Your task to perform on an android device: Go to CNN.com Image 0: 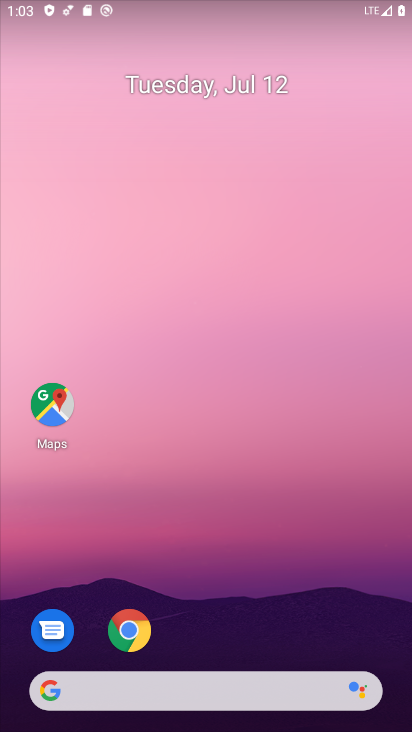
Step 0: click (127, 624)
Your task to perform on an android device: Go to CNN.com Image 1: 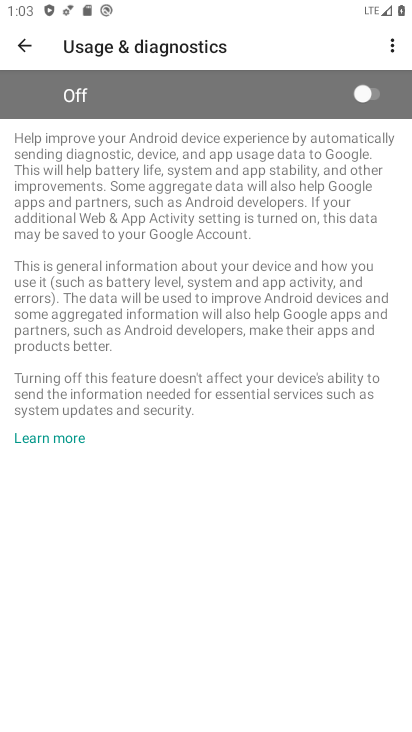
Step 1: press back button
Your task to perform on an android device: Go to CNN.com Image 2: 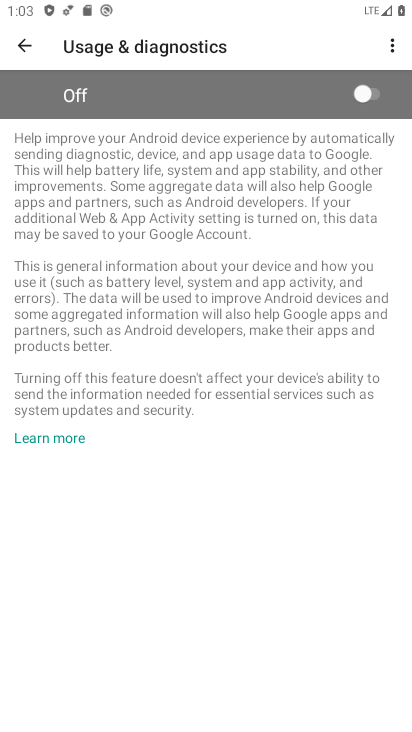
Step 2: press home button
Your task to perform on an android device: Go to CNN.com Image 3: 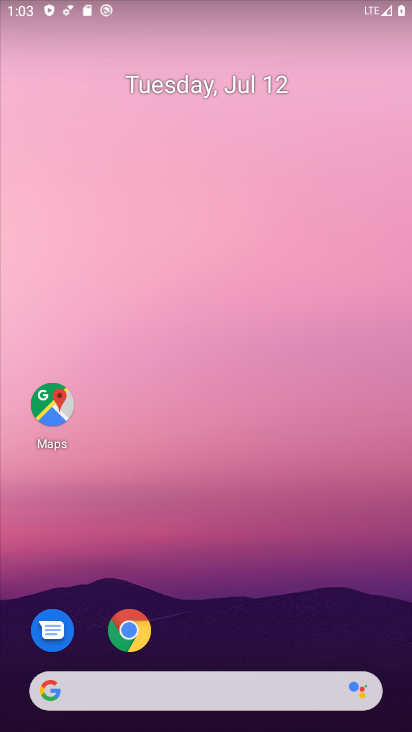
Step 3: click (128, 632)
Your task to perform on an android device: Go to CNN.com Image 4: 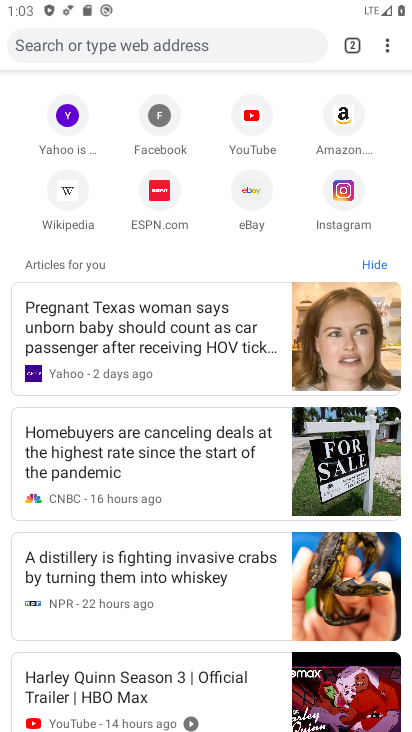
Step 4: click (98, 45)
Your task to perform on an android device: Go to CNN.com Image 5: 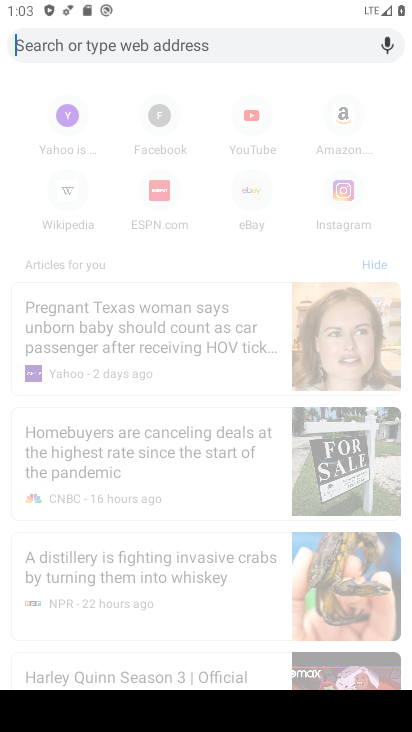
Step 5: type "CNN.com"
Your task to perform on an android device: Go to CNN.com Image 6: 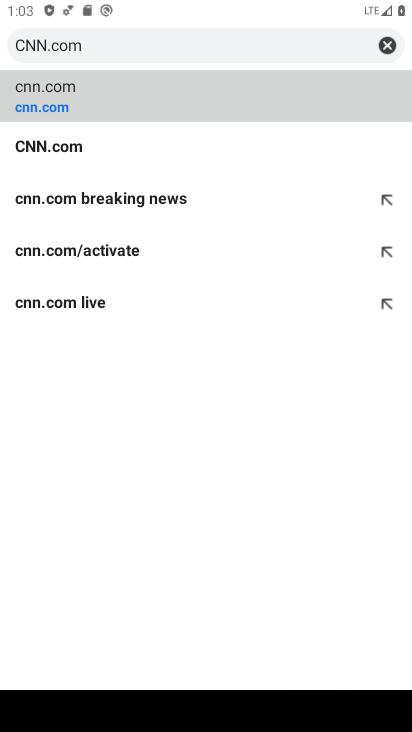
Step 6: click (55, 95)
Your task to perform on an android device: Go to CNN.com Image 7: 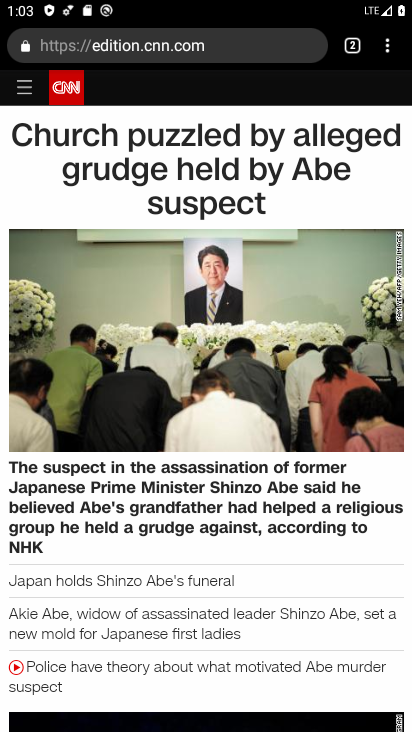
Step 7: task complete